Your task to perform on an android device: Open calendar and show me the first week of next month Image 0: 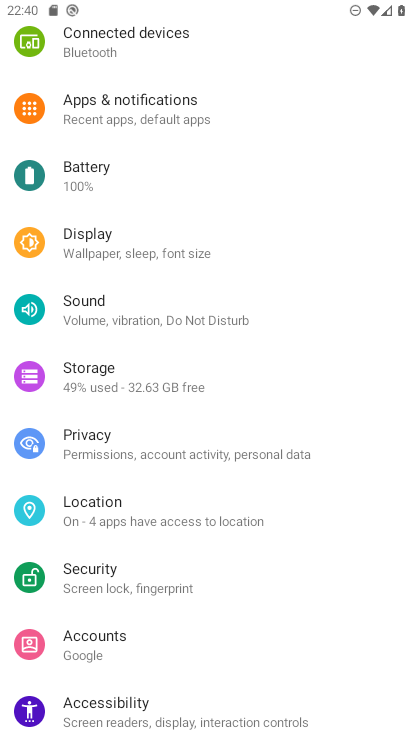
Step 0: press home button
Your task to perform on an android device: Open calendar and show me the first week of next month Image 1: 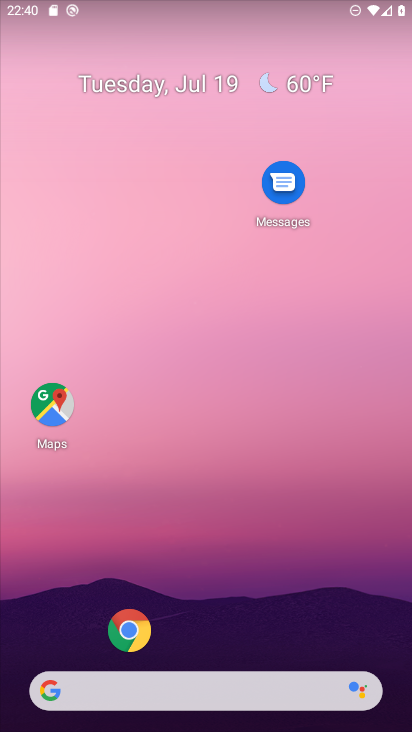
Step 1: drag from (48, 613) to (221, 127)
Your task to perform on an android device: Open calendar and show me the first week of next month Image 2: 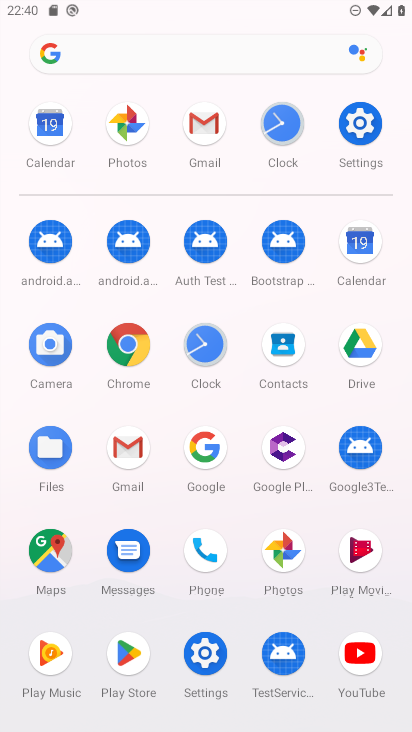
Step 2: click (357, 242)
Your task to perform on an android device: Open calendar and show me the first week of next month Image 3: 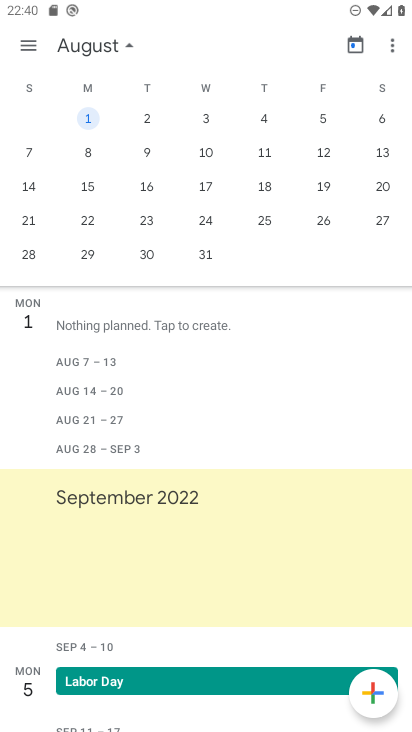
Step 3: task complete